Your task to perform on an android device: Open eBay Image 0: 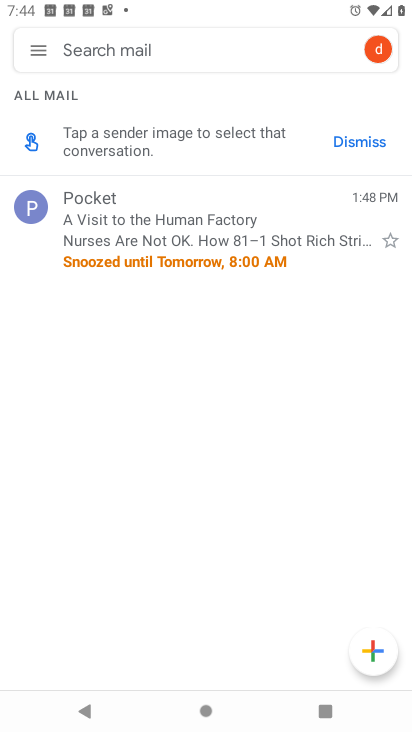
Step 0: press home button
Your task to perform on an android device: Open eBay Image 1: 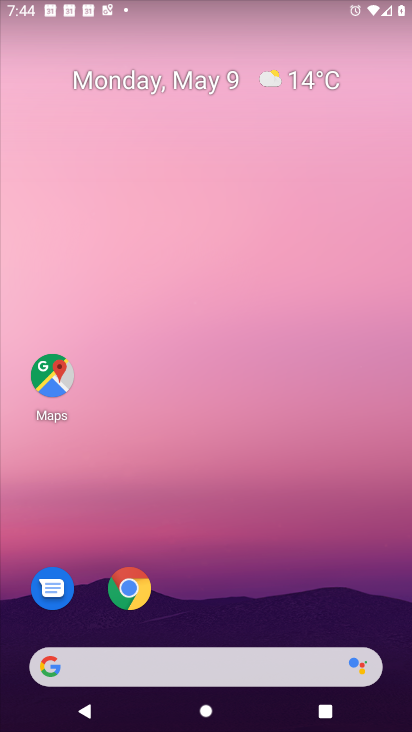
Step 1: drag from (340, 609) to (0, 263)
Your task to perform on an android device: Open eBay Image 2: 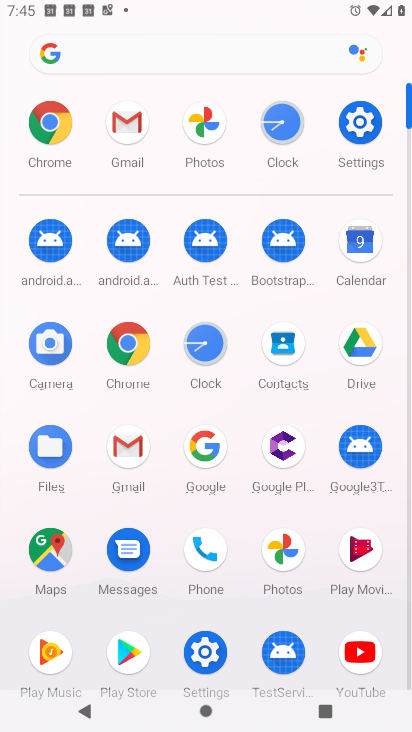
Step 2: click (132, 388)
Your task to perform on an android device: Open eBay Image 3: 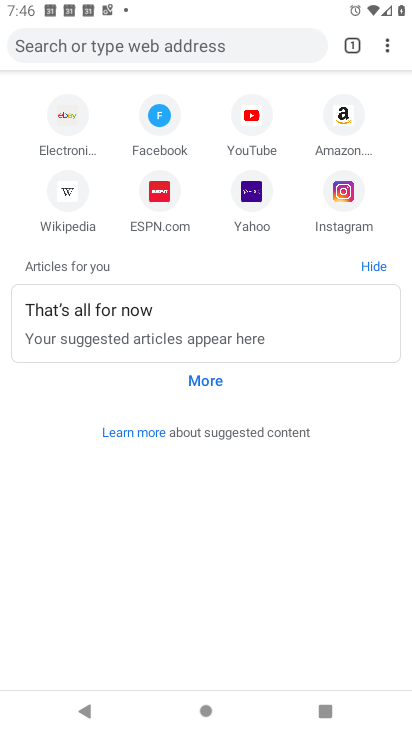
Step 3: click (81, 122)
Your task to perform on an android device: Open eBay Image 4: 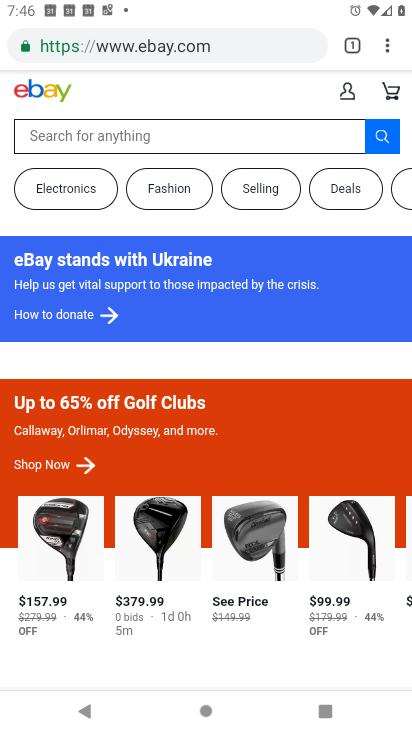
Step 4: task complete